Your task to perform on an android device: Go to notification settings Image 0: 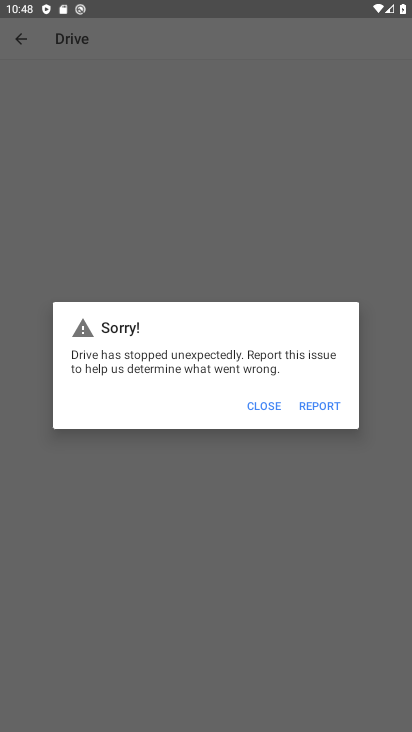
Step 0: press home button
Your task to perform on an android device: Go to notification settings Image 1: 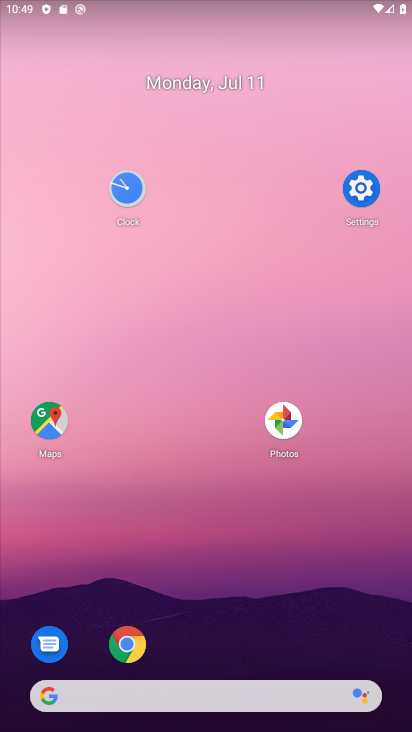
Step 1: click (366, 178)
Your task to perform on an android device: Go to notification settings Image 2: 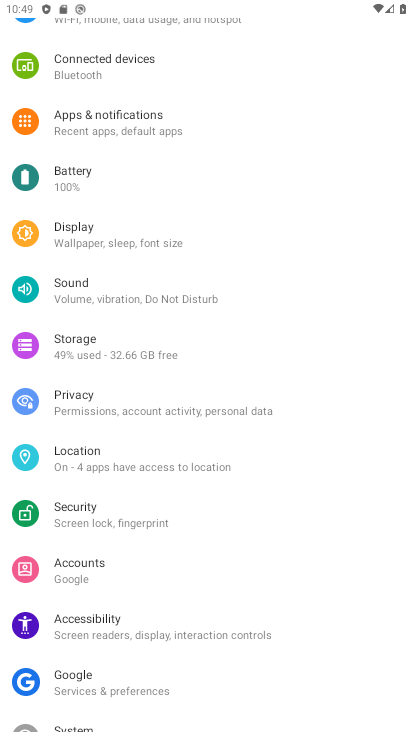
Step 2: click (155, 127)
Your task to perform on an android device: Go to notification settings Image 3: 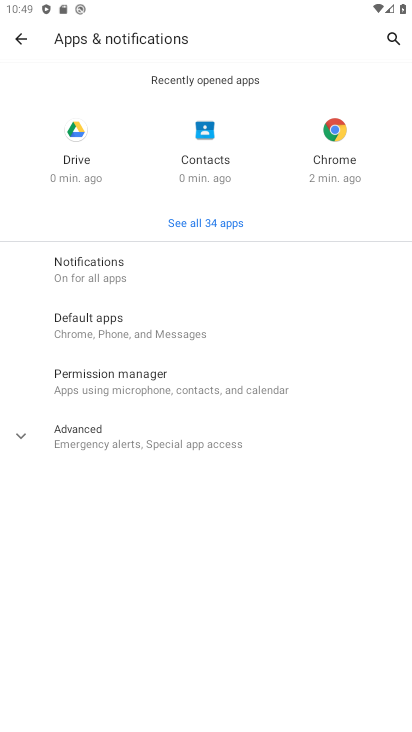
Step 3: task complete